Your task to perform on an android device: What's the weather going to be this weekend? Image 0: 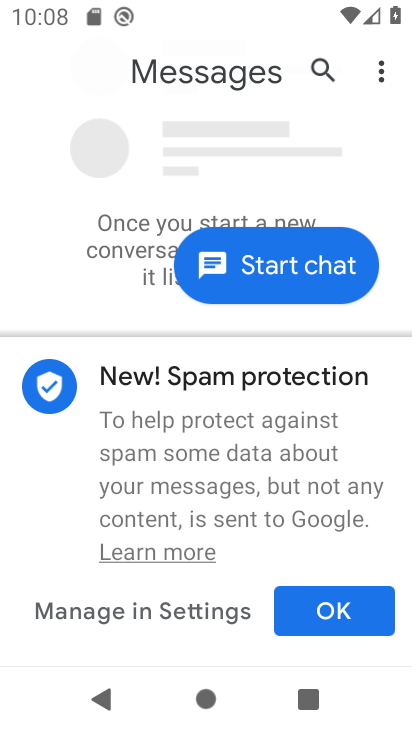
Step 0: press back button
Your task to perform on an android device: What's the weather going to be this weekend? Image 1: 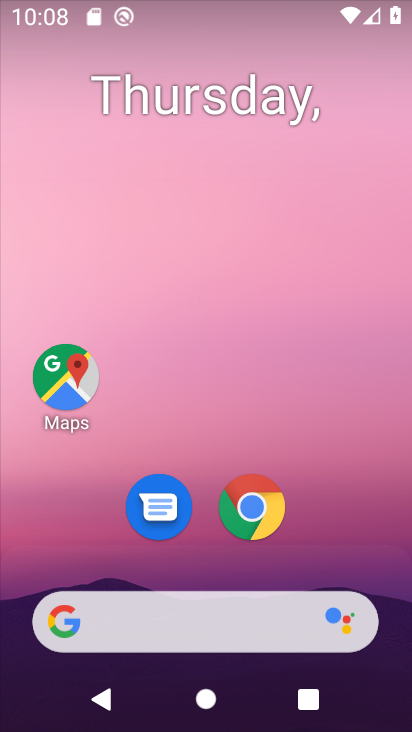
Step 1: drag from (314, 602) to (265, 48)
Your task to perform on an android device: What's the weather going to be this weekend? Image 2: 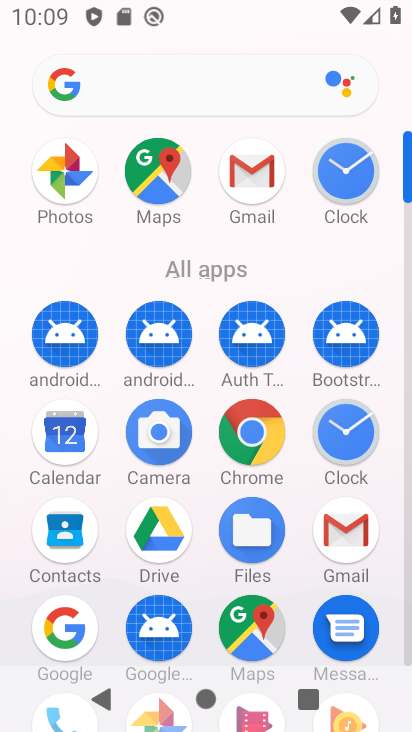
Step 2: click (242, 425)
Your task to perform on an android device: What's the weather going to be this weekend? Image 3: 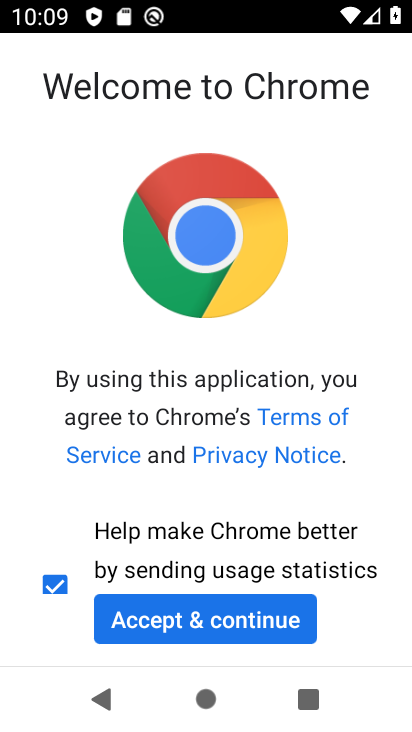
Step 3: click (187, 617)
Your task to perform on an android device: What's the weather going to be this weekend? Image 4: 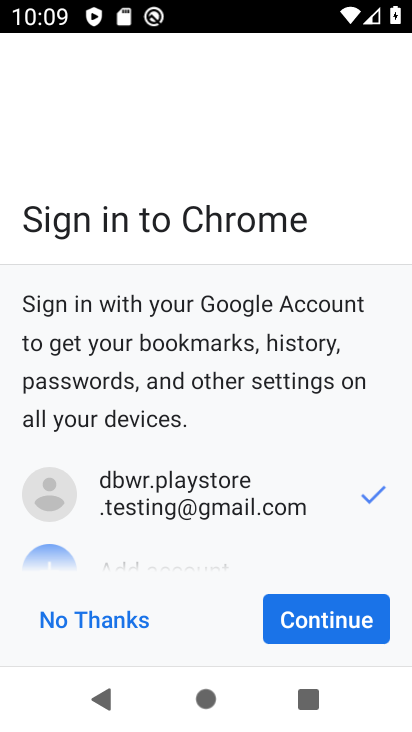
Step 4: click (310, 625)
Your task to perform on an android device: What's the weather going to be this weekend? Image 5: 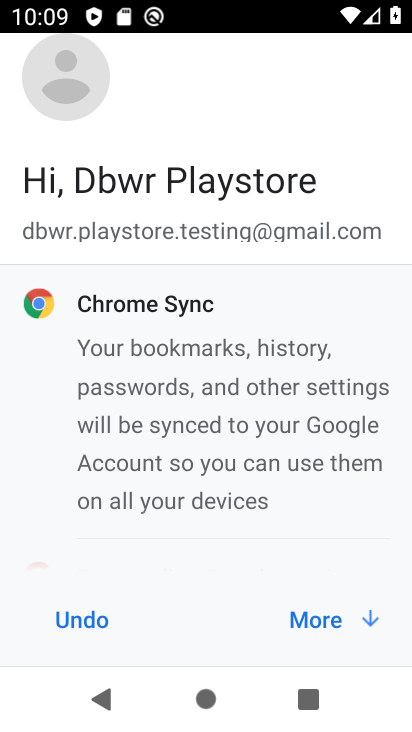
Step 5: click (345, 610)
Your task to perform on an android device: What's the weather going to be this weekend? Image 6: 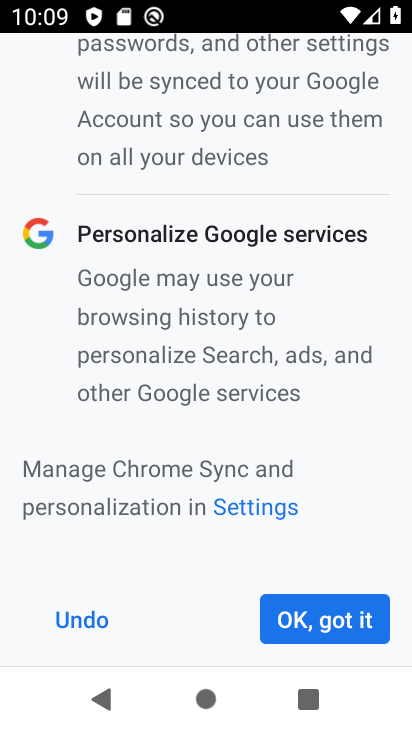
Step 6: click (324, 613)
Your task to perform on an android device: What's the weather going to be this weekend? Image 7: 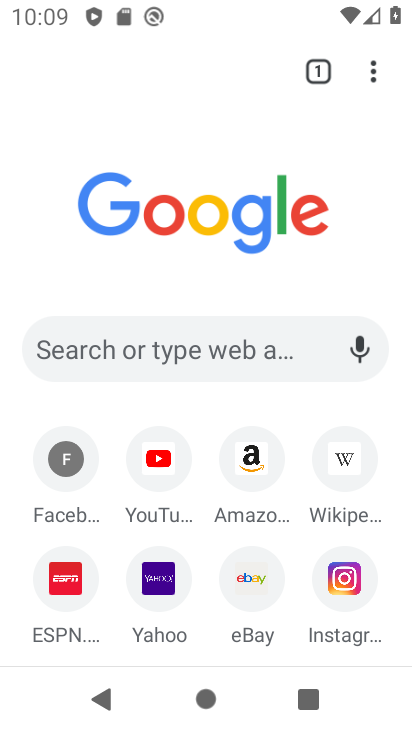
Step 7: click (131, 332)
Your task to perform on an android device: What's the weather going to be this weekend? Image 8: 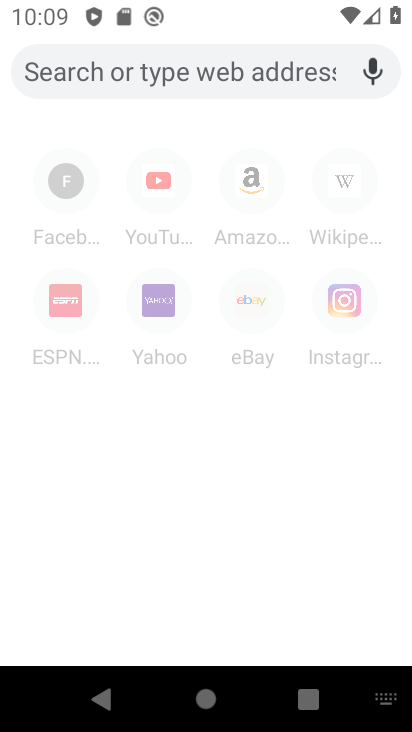
Step 8: type "What's the weather going to be this weekend?"
Your task to perform on an android device: What's the weather going to be this weekend? Image 9: 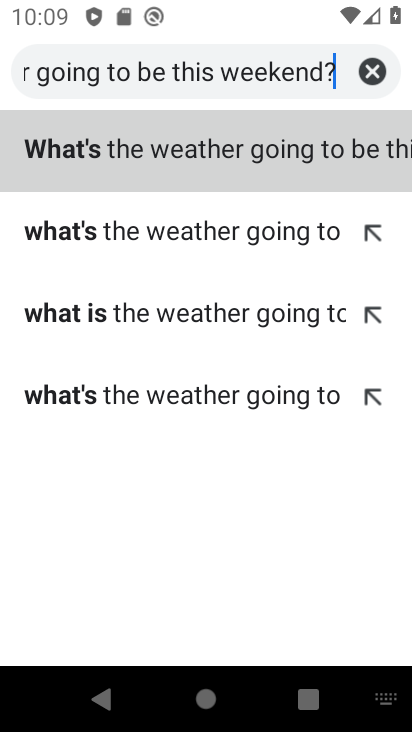
Step 9: type ""
Your task to perform on an android device: What's the weather going to be this weekend? Image 10: 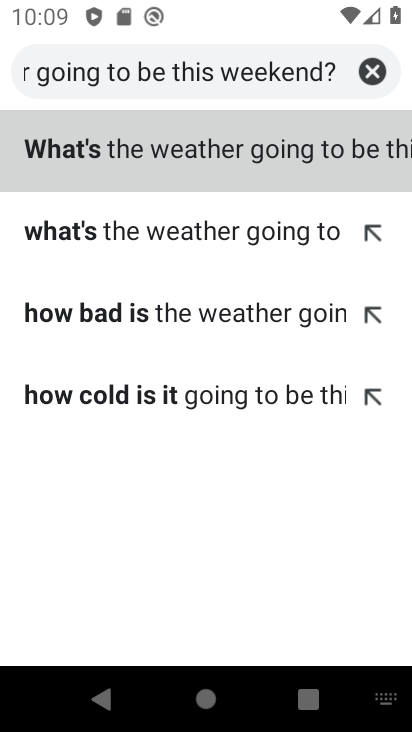
Step 10: click (241, 161)
Your task to perform on an android device: What's the weather going to be this weekend? Image 11: 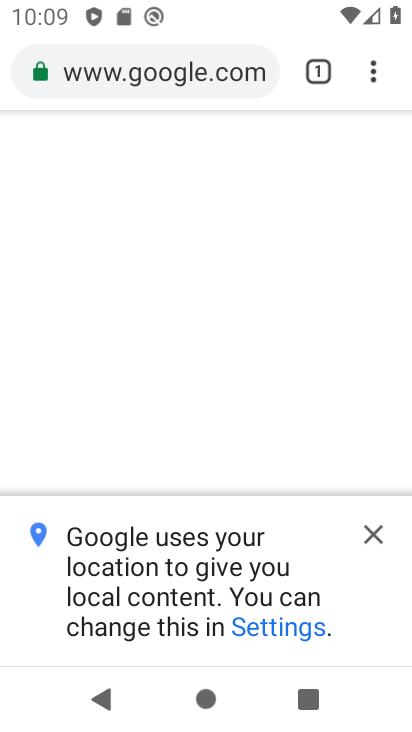
Step 11: click (368, 529)
Your task to perform on an android device: What's the weather going to be this weekend? Image 12: 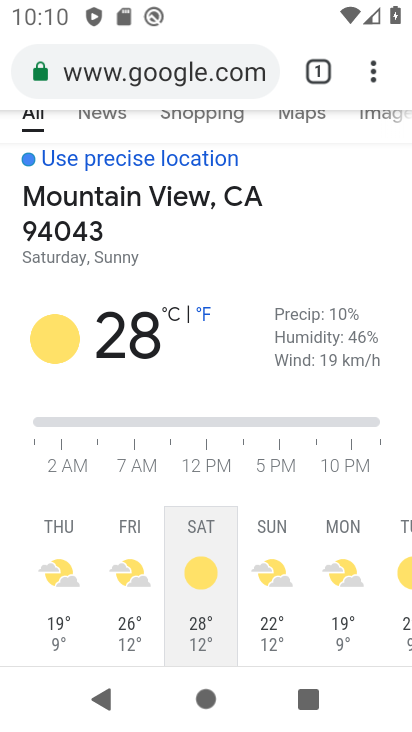
Step 12: task complete